Your task to perform on an android device: check the backup settings in the google photos Image 0: 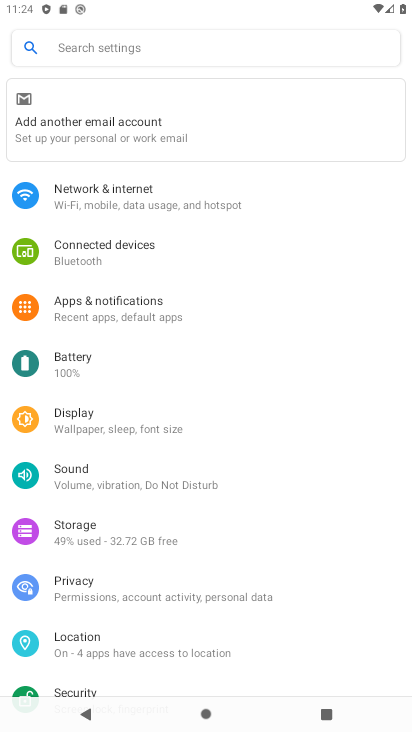
Step 0: press home button
Your task to perform on an android device: check the backup settings in the google photos Image 1: 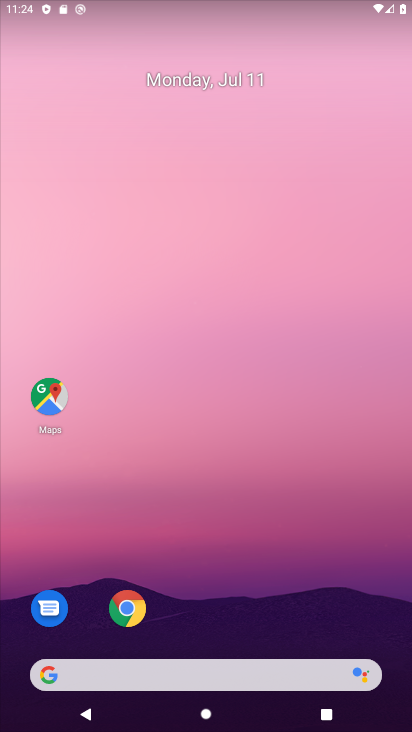
Step 1: drag from (197, 572) to (174, 81)
Your task to perform on an android device: check the backup settings in the google photos Image 2: 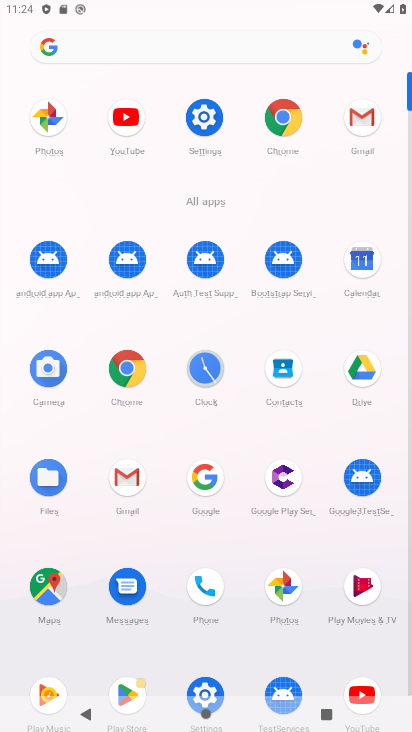
Step 2: click (48, 137)
Your task to perform on an android device: check the backup settings in the google photos Image 3: 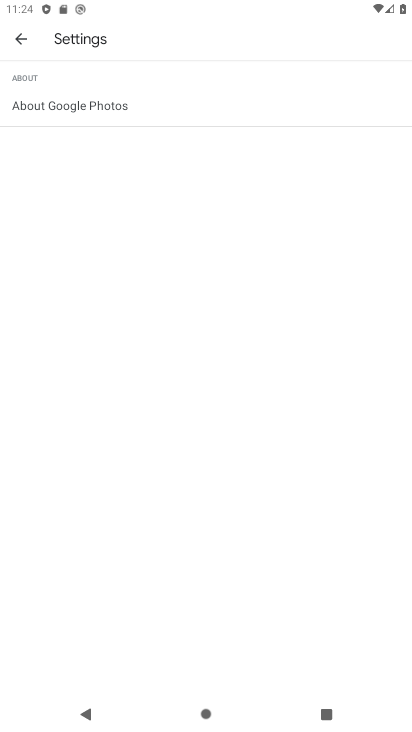
Step 3: click (24, 51)
Your task to perform on an android device: check the backup settings in the google photos Image 4: 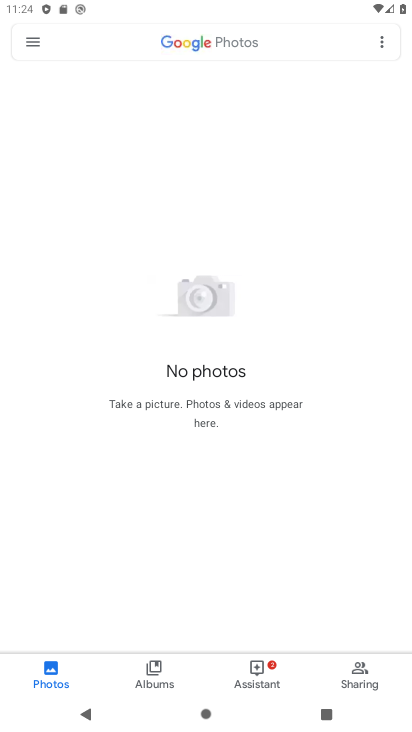
Step 4: click (43, 50)
Your task to perform on an android device: check the backup settings in the google photos Image 5: 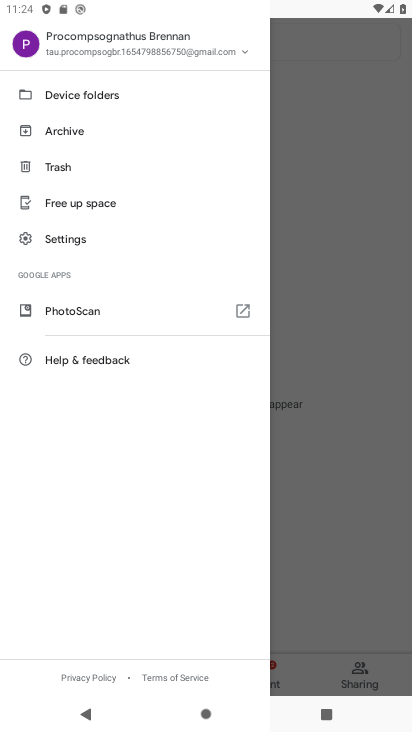
Step 5: click (116, 237)
Your task to perform on an android device: check the backup settings in the google photos Image 6: 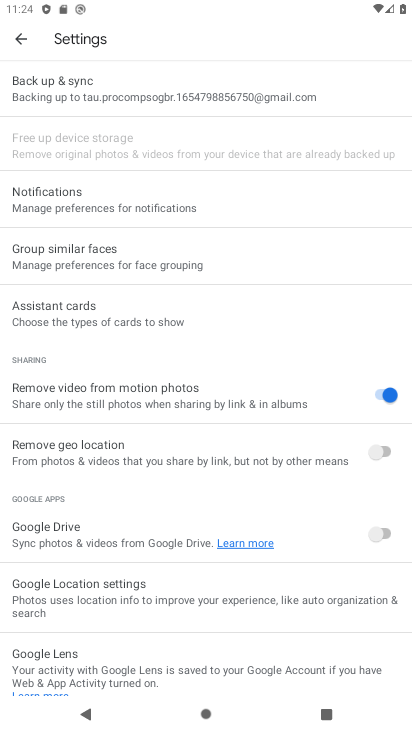
Step 6: click (152, 74)
Your task to perform on an android device: check the backup settings in the google photos Image 7: 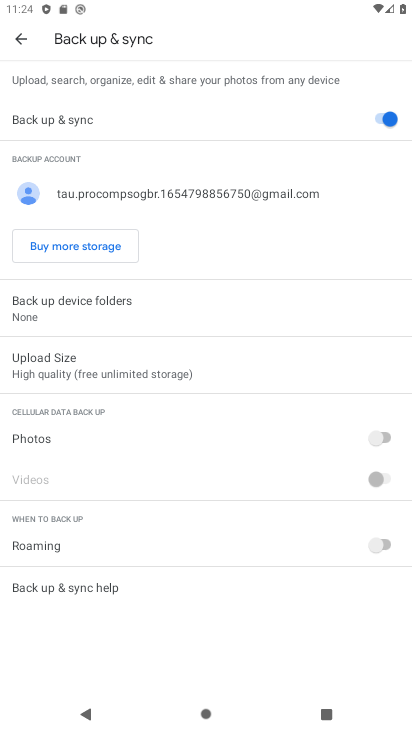
Step 7: task complete